Your task to perform on an android device: Open calendar and show me the first week of next month Image 0: 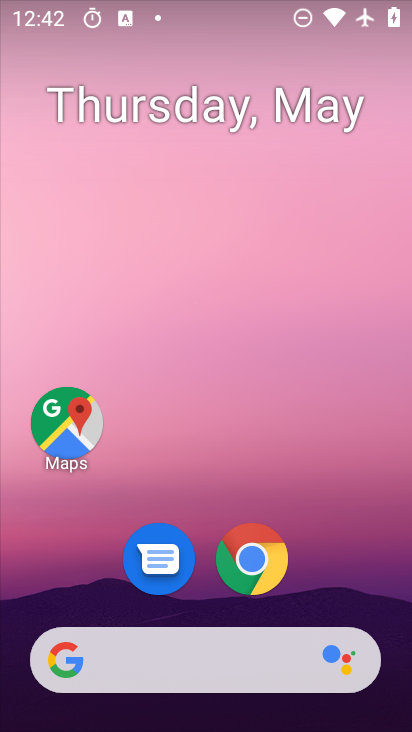
Step 0: drag from (208, 562) to (137, 148)
Your task to perform on an android device: Open calendar and show me the first week of next month Image 1: 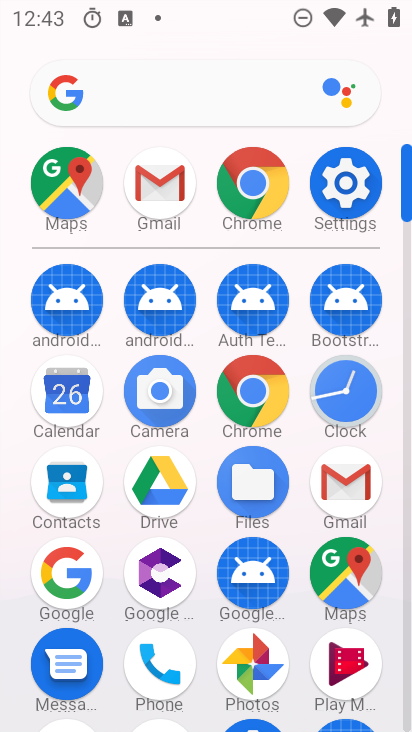
Step 1: click (66, 398)
Your task to perform on an android device: Open calendar and show me the first week of next month Image 2: 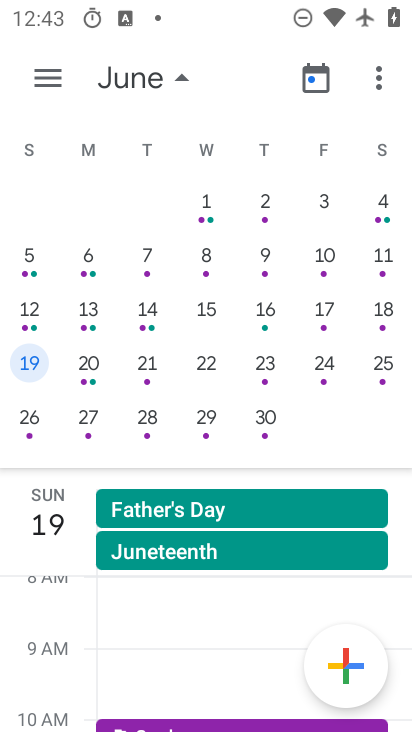
Step 2: click (40, 276)
Your task to perform on an android device: Open calendar and show me the first week of next month Image 3: 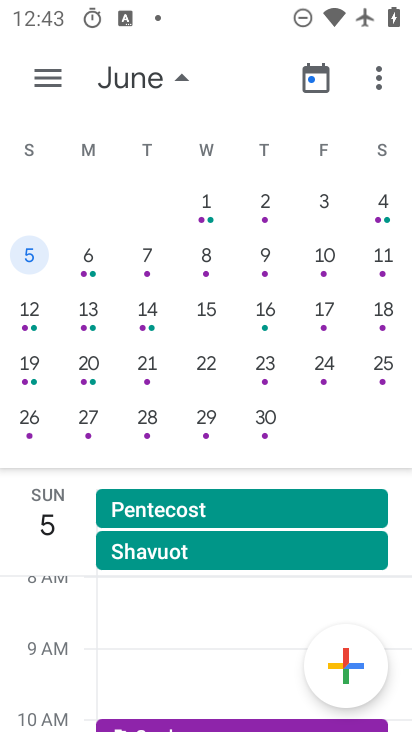
Step 3: task complete